Your task to perform on an android device: Open Google Chrome and click the shortcut for Amazon.com Image 0: 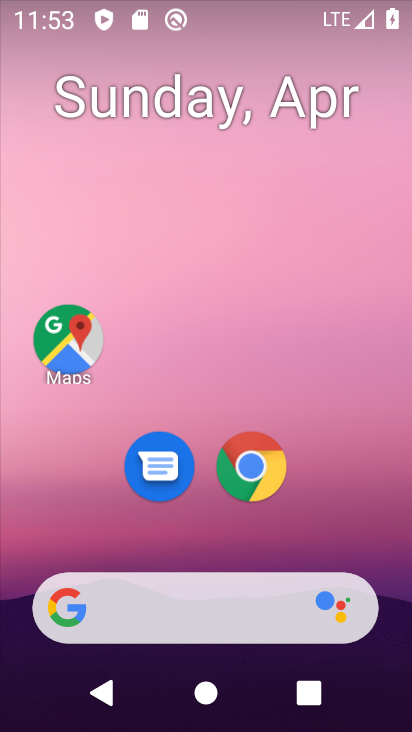
Step 0: drag from (372, 556) to (302, 116)
Your task to perform on an android device: Open Google Chrome and click the shortcut for Amazon.com Image 1: 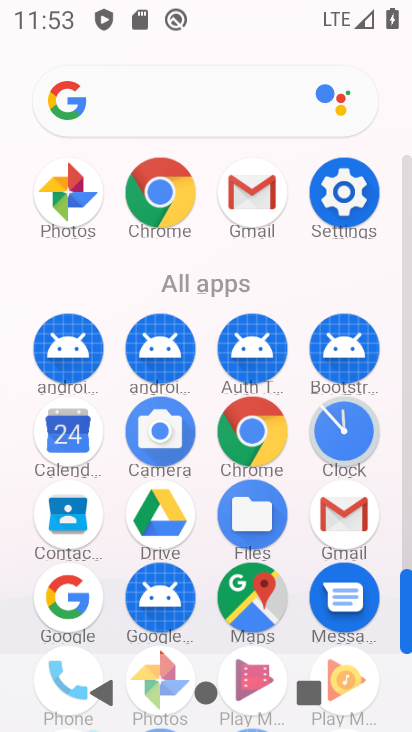
Step 1: click (163, 206)
Your task to perform on an android device: Open Google Chrome and click the shortcut for Amazon.com Image 2: 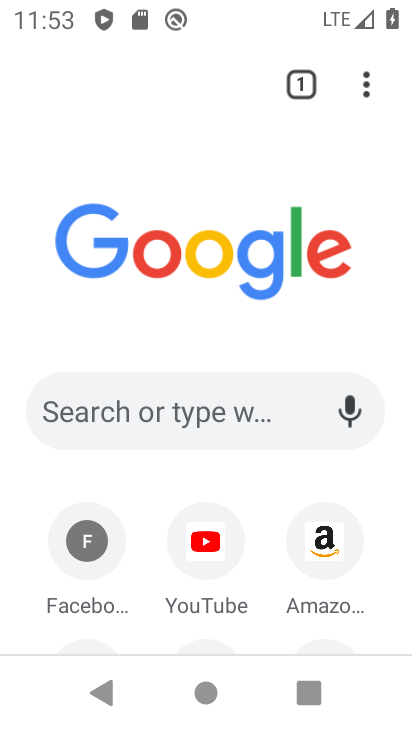
Step 2: click (337, 563)
Your task to perform on an android device: Open Google Chrome and click the shortcut for Amazon.com Image 3: 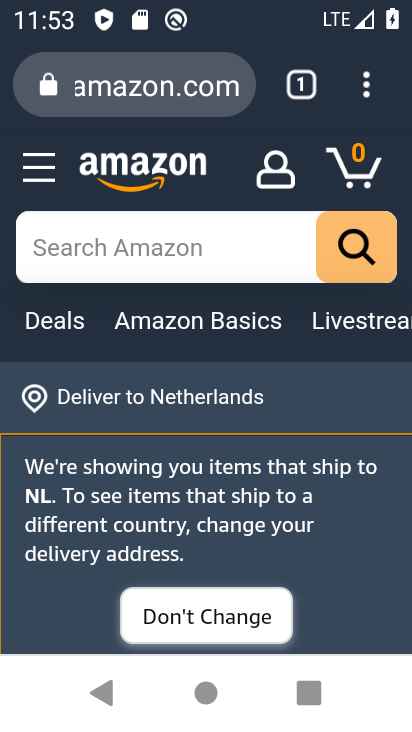
Step 3: task complete